Your task to perform on an android device: Open maps Image 0: 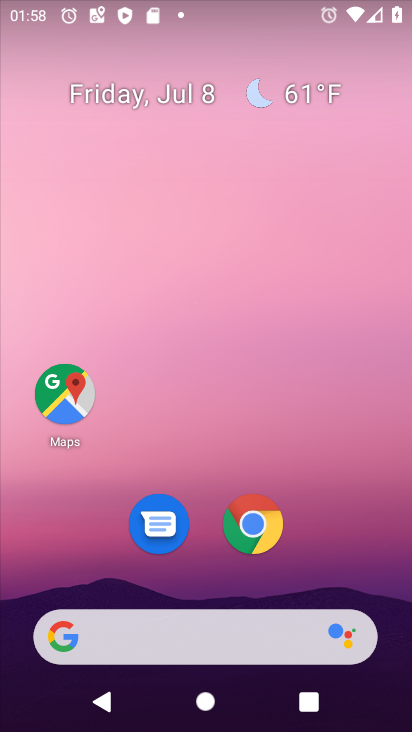
Step 0: click (69, 399)
Your task to perform on an android device: Open maps Image 1: 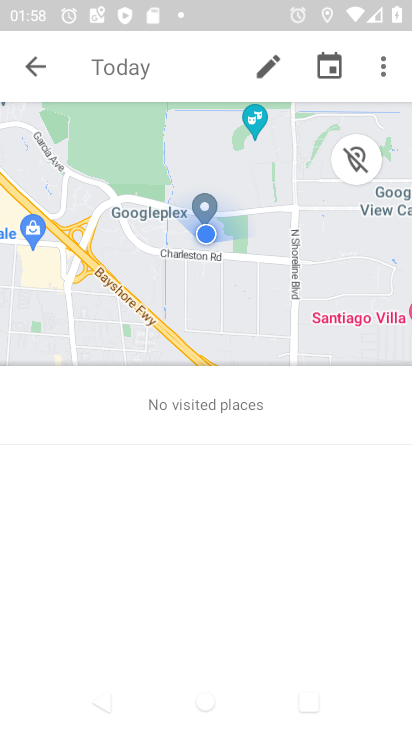
Step 1: click (25, 56)
Your task to perform on an android device: Open maps Image 2: 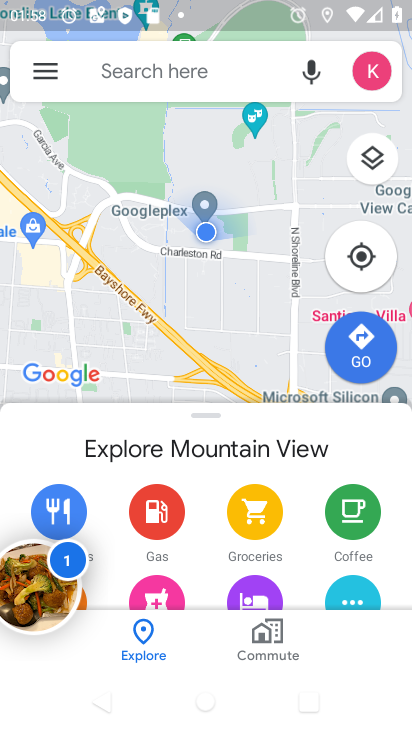
Step 2: task complete